Your task to perform on an android device: Open my contact list Image 0: 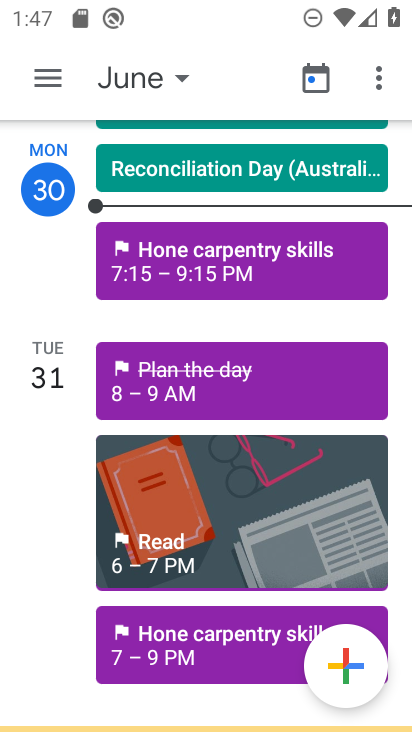
Step 0: press home button
Your task to perform on an android device: Open my contact list Image 1: 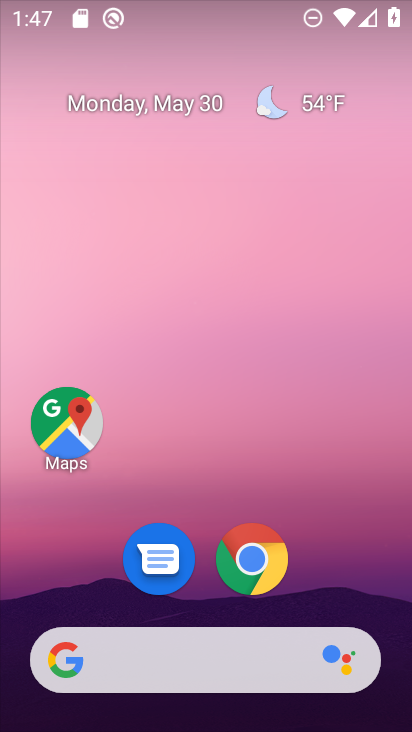
Step 1: drag from (320, 622) to (323, 63)
Your task to perform on an android device: Open my contact list Image 2: 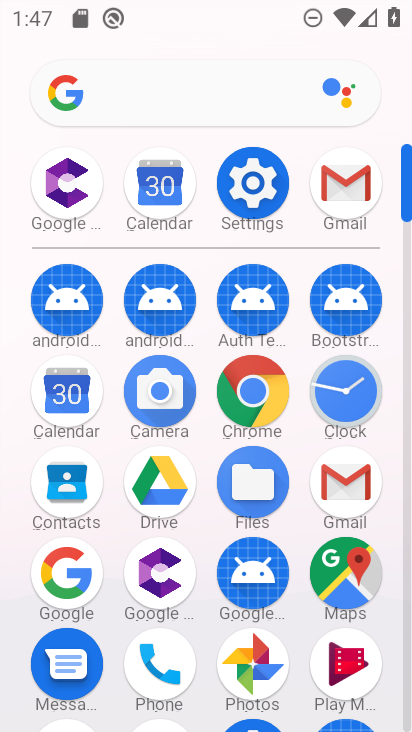
Step 2: click (53, 485)
Your task to perform on an android device: Open my contact list Image 3: 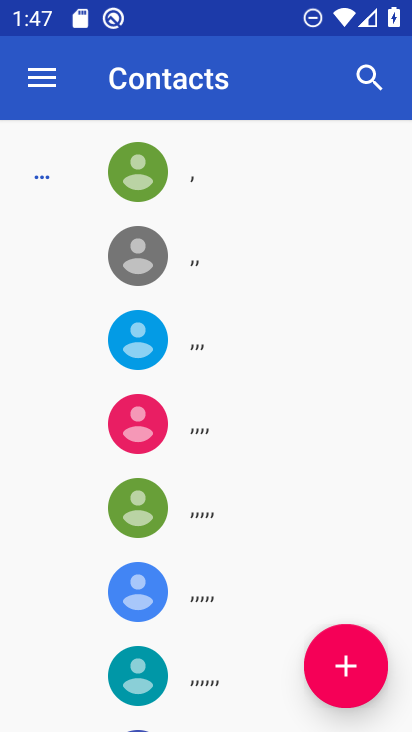
Step 3: task complete